Your task to perform on an android device: Open Google Maps and go to "Timeline" Image 0: 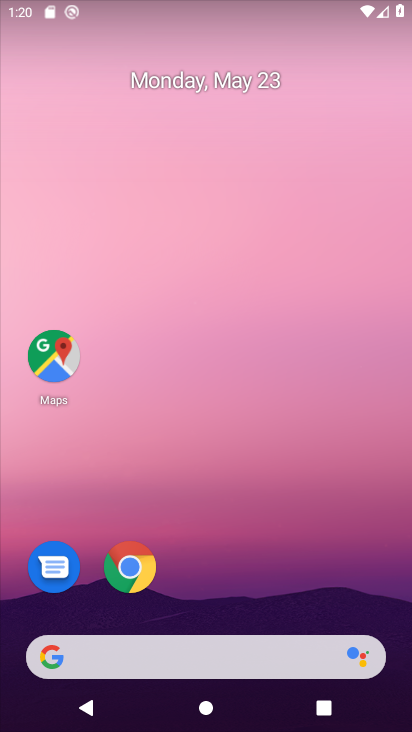
Step 0: drag from (228, 616) to (236, 247)
Your task to perform on an android device: Open Google Maps and go to "Timeline" Image 1: 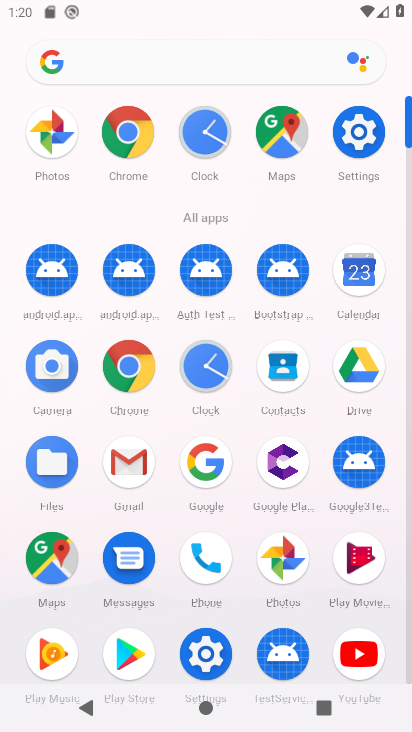
Step 1: click (56, 565)
Your task to perform on an android device: Open Google Maps and go to "Timeline" Image 2: 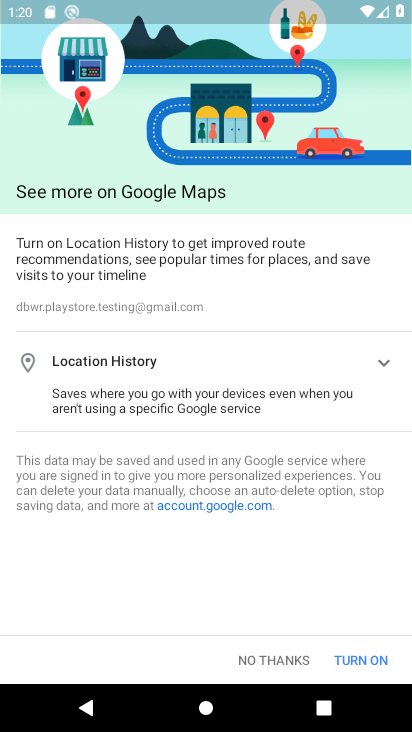
Step 2: click (254, 665)
Your task to perform on an android device: Open Google Maps and go to "Timeline" Image 3: 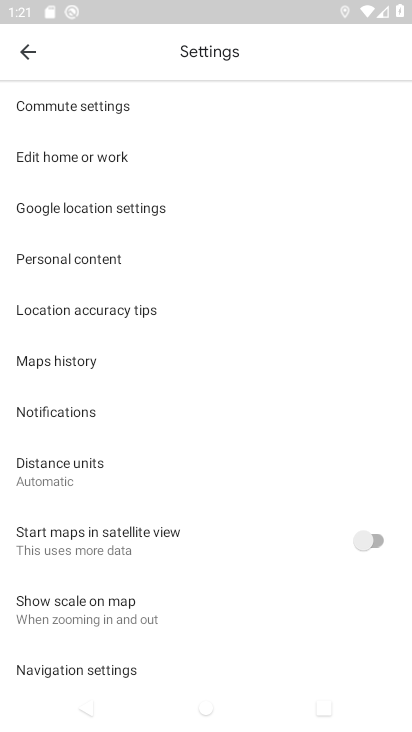
Step 3: click (30, 68)
Your task to perform on an android device: Open Google Maps and go to "Timeline" Image 4: 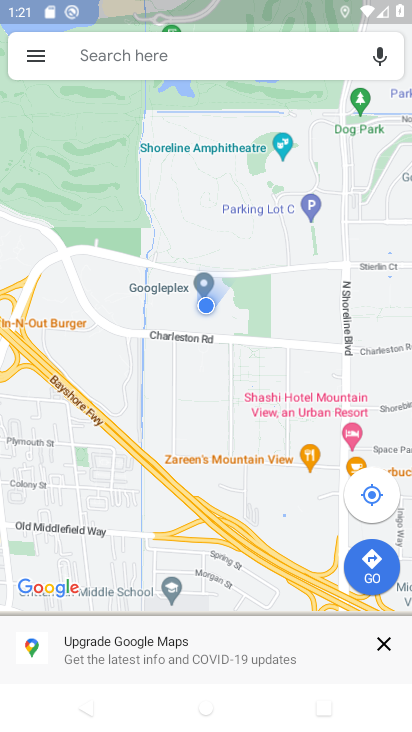
Step 4: click (28, 64)
Your task to perform on an android device: Open Google Maps and go to "Timeline" Image 5: 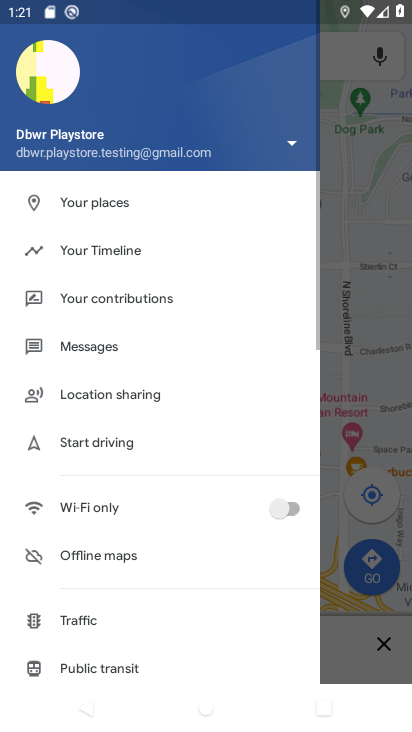
Step 5: click (121, 251)
Your task to perform on an android device: Open Google Maps and go to "Timeline" Image 6: 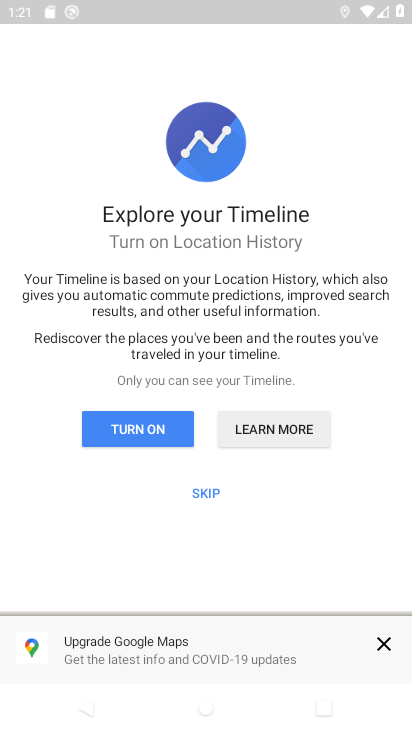
Step 6: click (210, 498)
Your task to perform on an android device: Open Google Maps and go to "Timeline" Image 7: 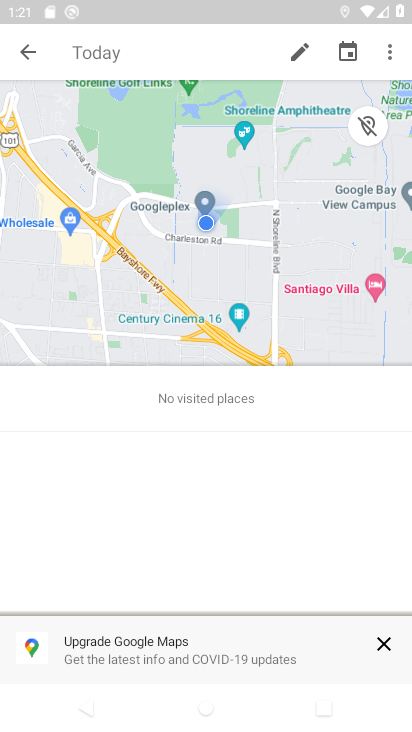
Step 7: task complete